Your task to perform on an android device: change the clock style Image 0: 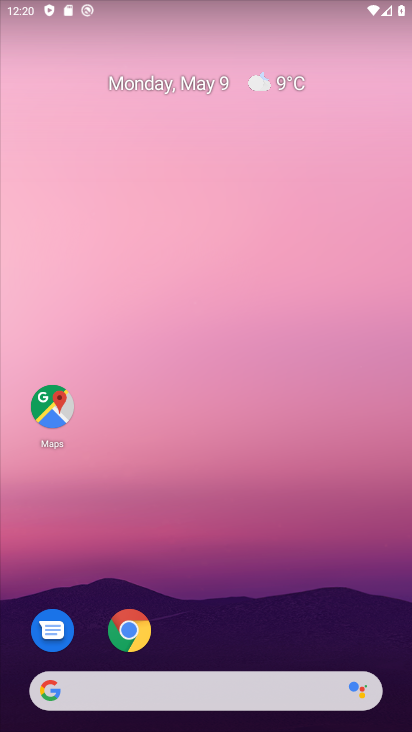
Step 0: drag from (255, 611) to (262, 1)
Your task to perform on an android device: change the clock style Image 1: 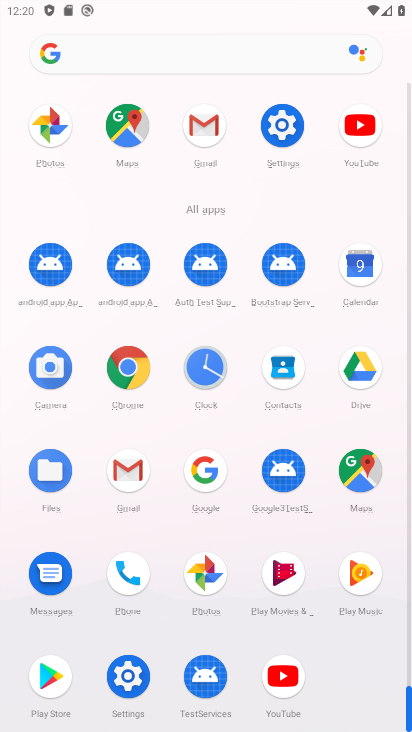
Step 1: click (208, 397)
Your task to perform on an android device: change the clock style Image 2: 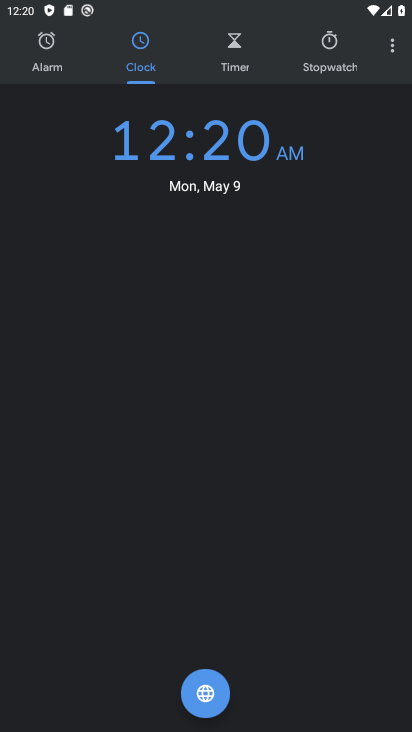
Step 2: click (395, 40)
Your task to perform on an android device: change the clock style Image 3: 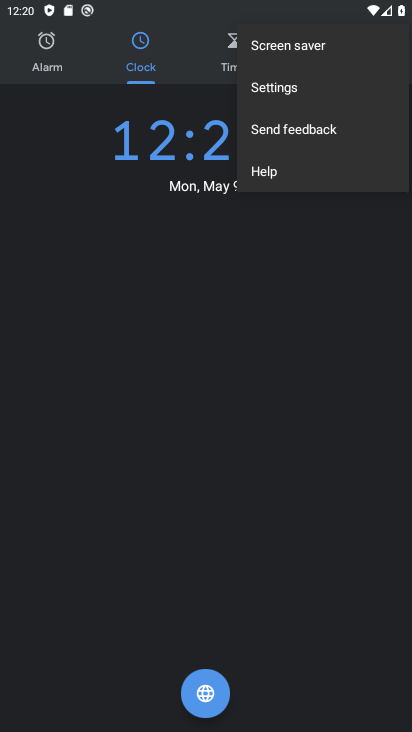
Step 3: click (296, 85)
Your task to perform on an android device: change the clock style Image 4: 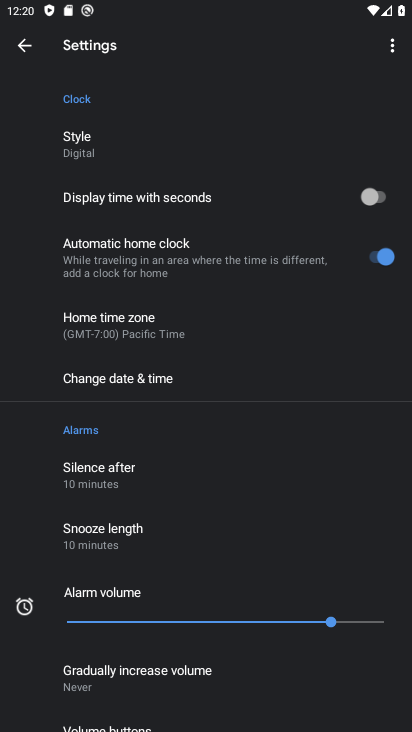
Step 4: click (87, 164)
Your task to perform on an android device: change the clock style Image 5: 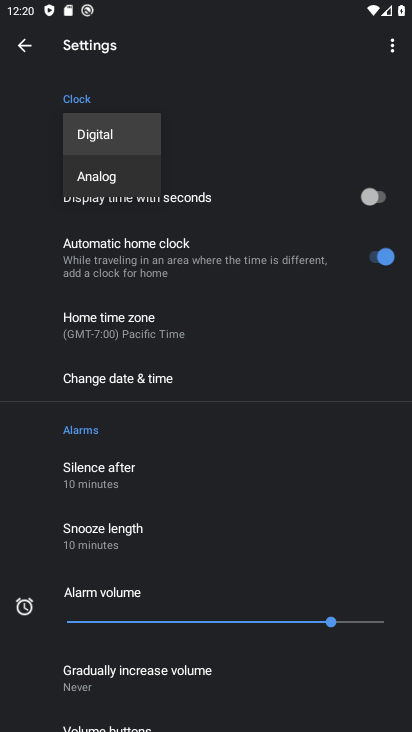
Step 5: click (111, 186)
Your task to perform on an android device: change the clock style Image 6: 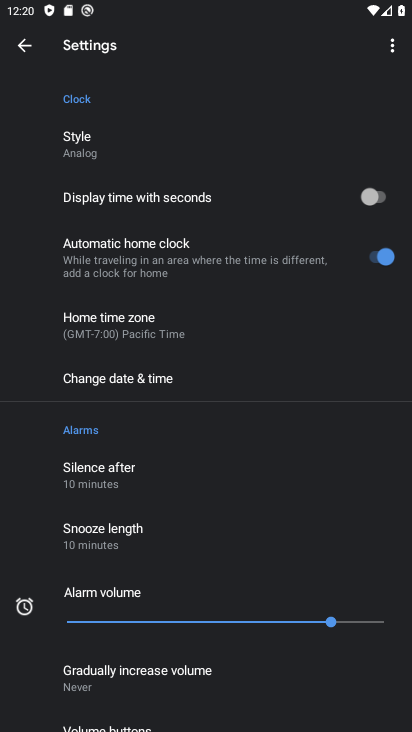
Step 6: task complete